Your task to perform on an android device: turn off wifi Image 0: 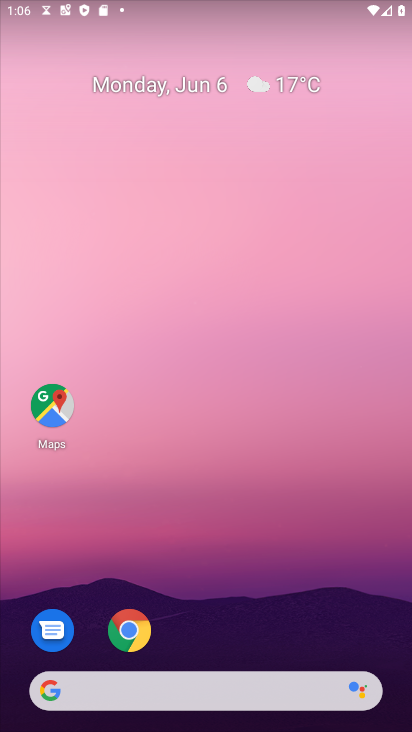
Step 0: drag from (152, 104) to (174, 212)
Your task to perform on an android device: turn off wifi Image 1: 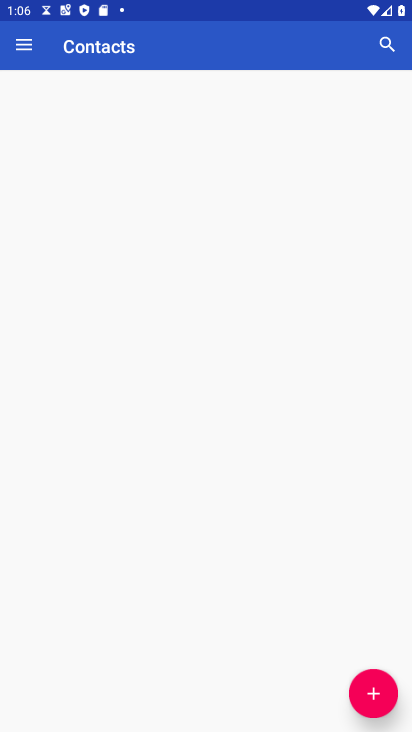
Step 1: drag from (215, 371) to (215, 49)
Your task to perform on an android device: turn off wifi Image 2: 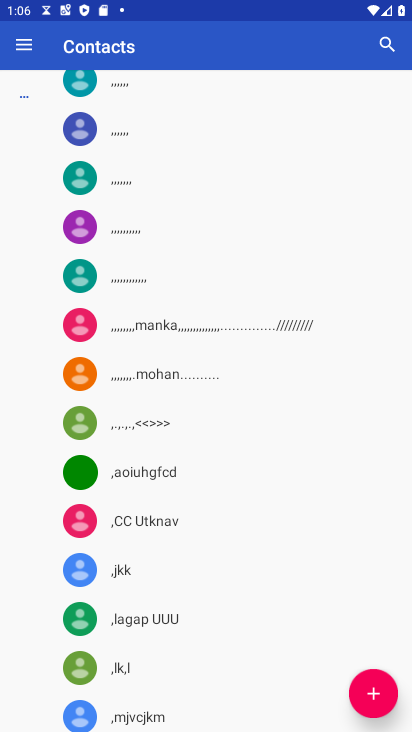
Step 2: press back button
Your task to perform on an android device: turn off wifi Image 3: 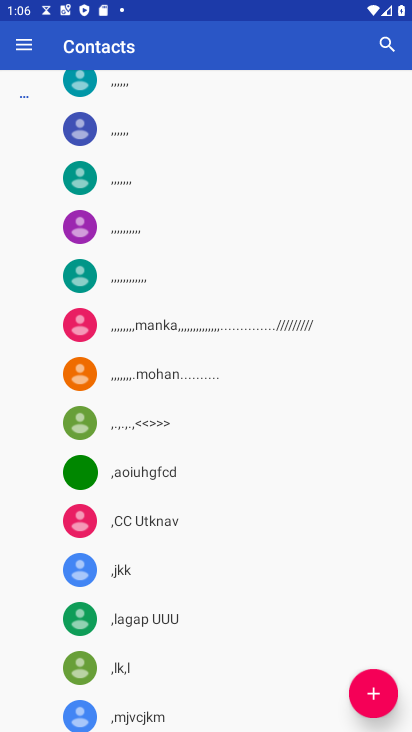
Step 3: press back button
Your task to perform on an android device: turn off wifi Image 4: 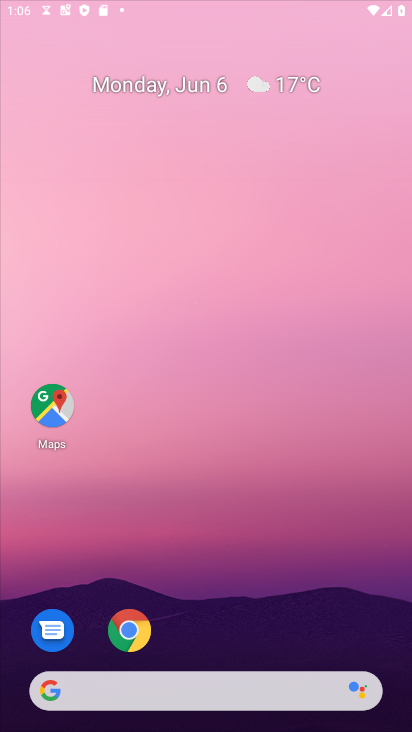
Step 4: press back button
Your task to perform on an android device: turn off wifi Image 5: 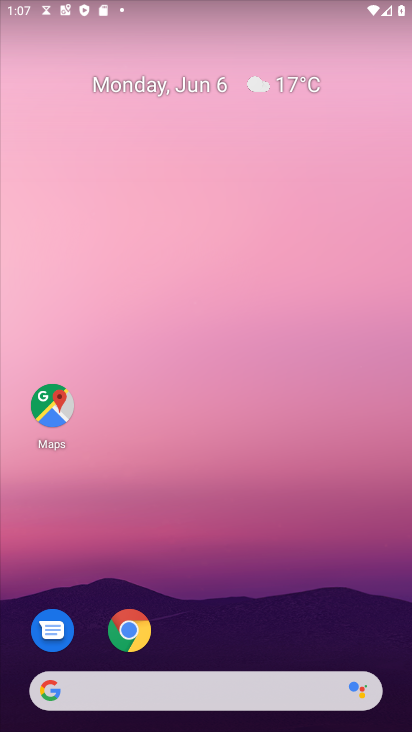
Step 5: drag from (211, 524) to (145, 33)
Your task to perform on an android device: turn off wifi Image 6: 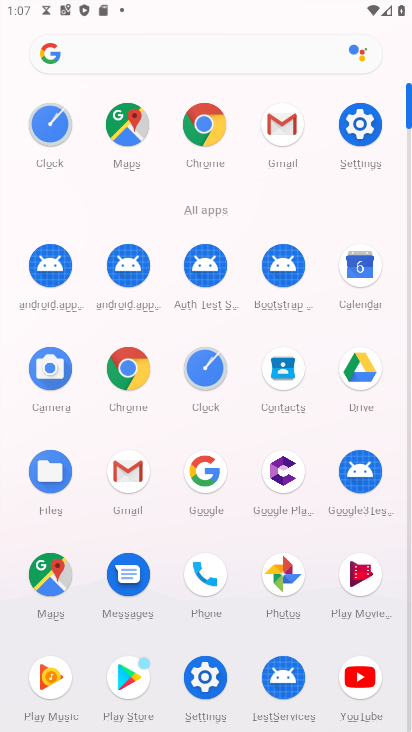
Step 6: click (353, 117)
Your task to perform on an android device: turn off wifi Image 7: 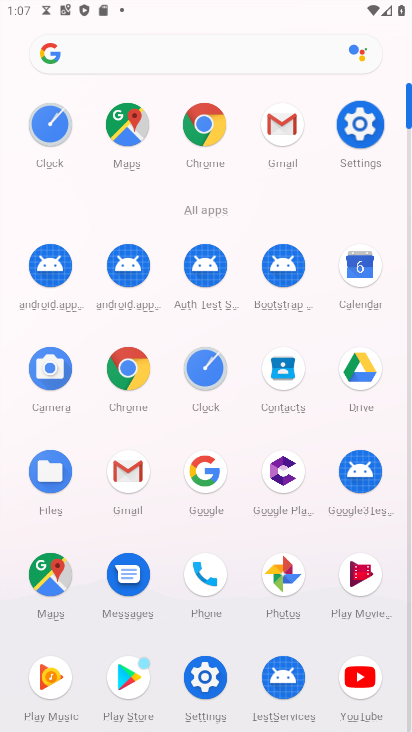
Step 7: click (353, 117)
Your task to perform on an android device: turn off wifi Image 8: 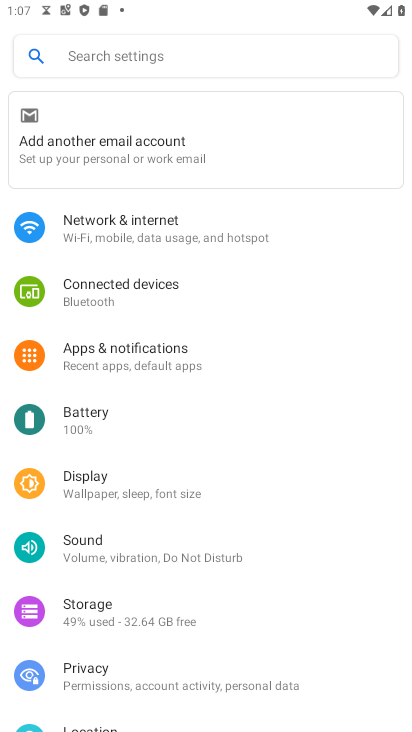
Step 8: click (122, 242)
Your task to perform on an android device: turn off wifi Image 9: 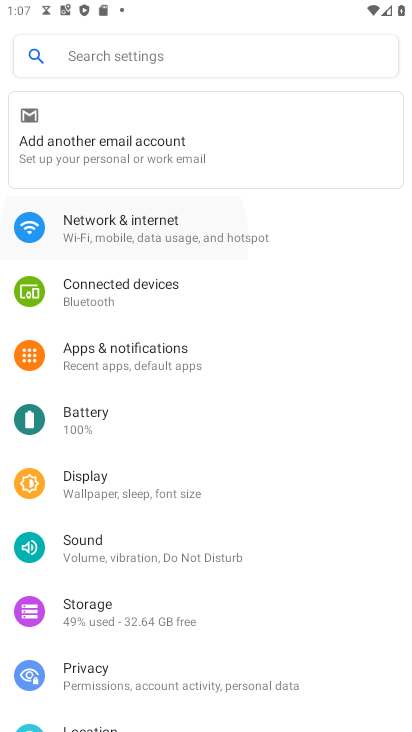
Step 9: click (122, 242)
Your task to perform on an android device: turn off wifi Image 10: 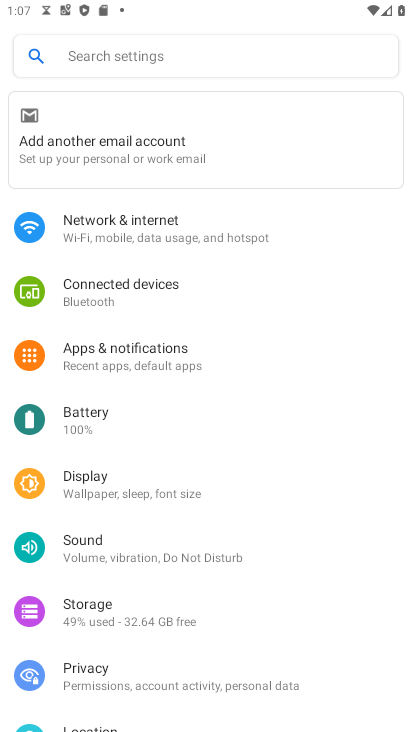
Step 10: click (124, 235)
Your task to perform on an android device: turn off wifi Image 11: 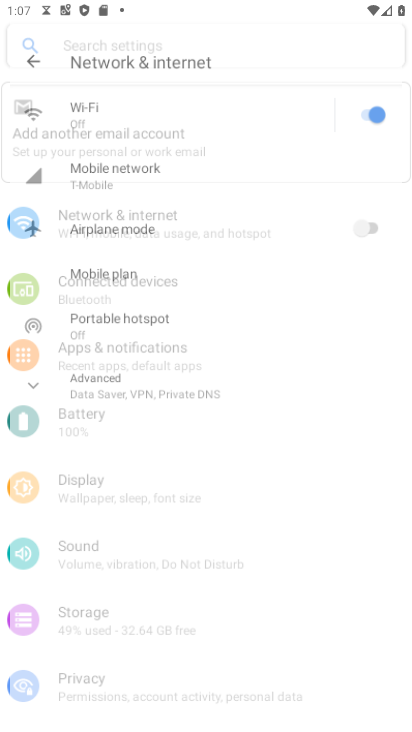
Step 11: click (125, 234)
Your task to perform on an android device: turn off wifi Image 12: 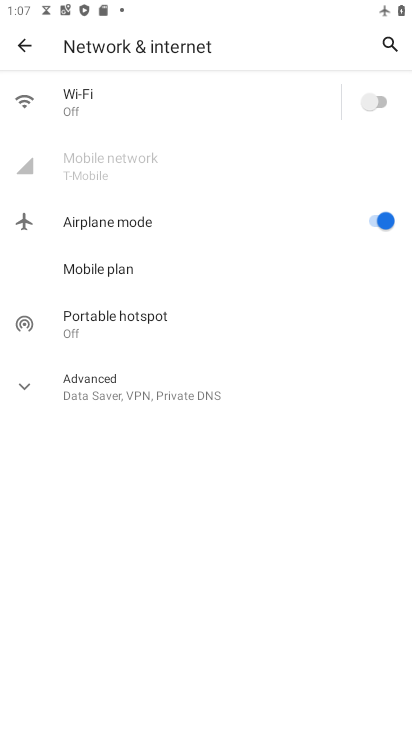
Step 12: task complete